Your task to perform on an android device: turn on location history Image 0: 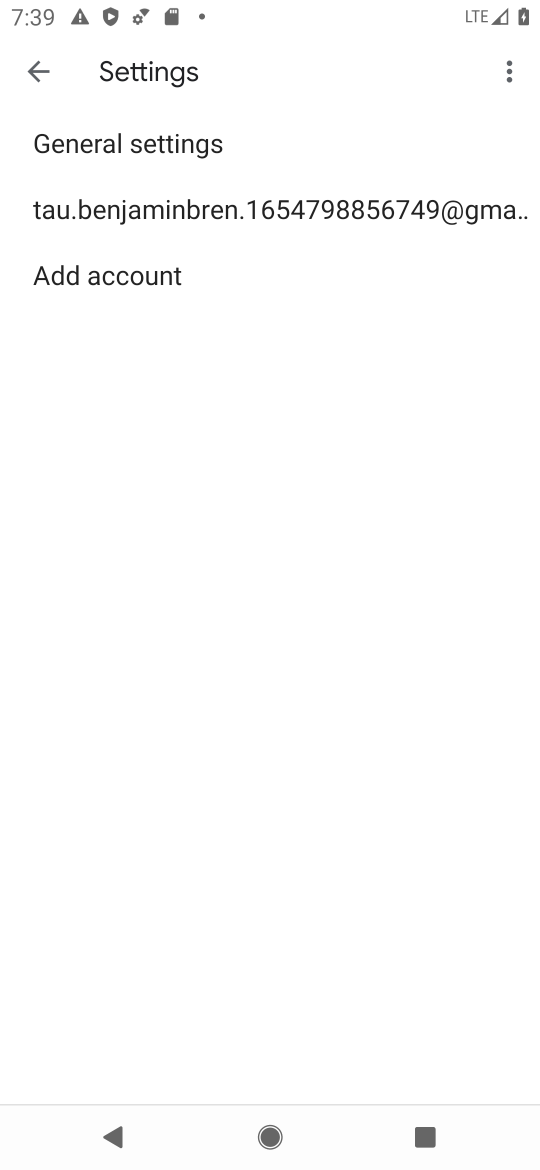
Step 0: drag from (377, 465) to (367, 409)
Your task to perform on an android device: turn on location history Image 1: 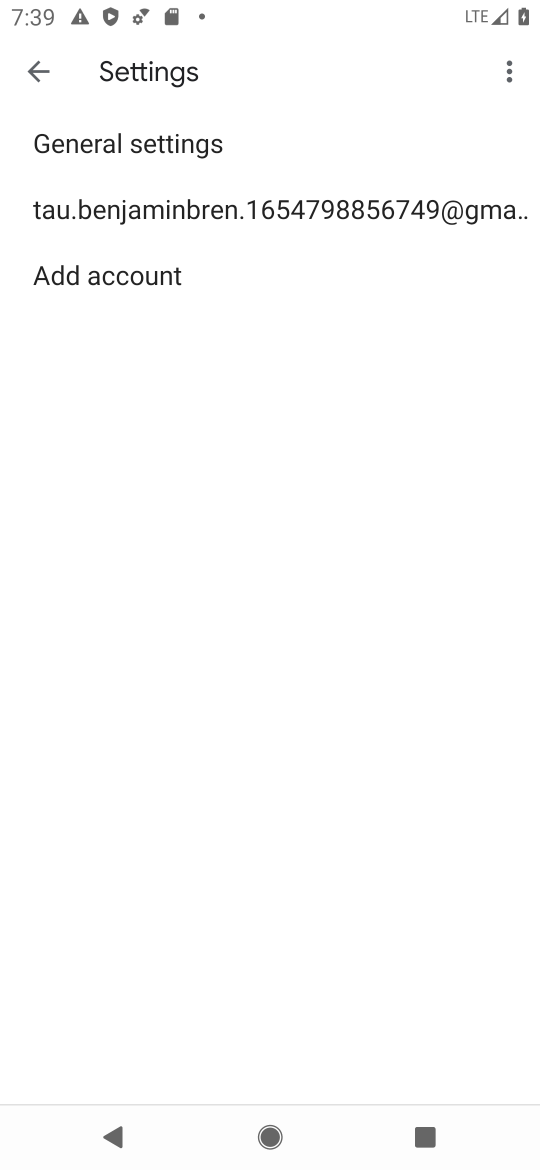
Step 1: click (276, 203)
Your task to perform on an android device: turn on location history Image 2: 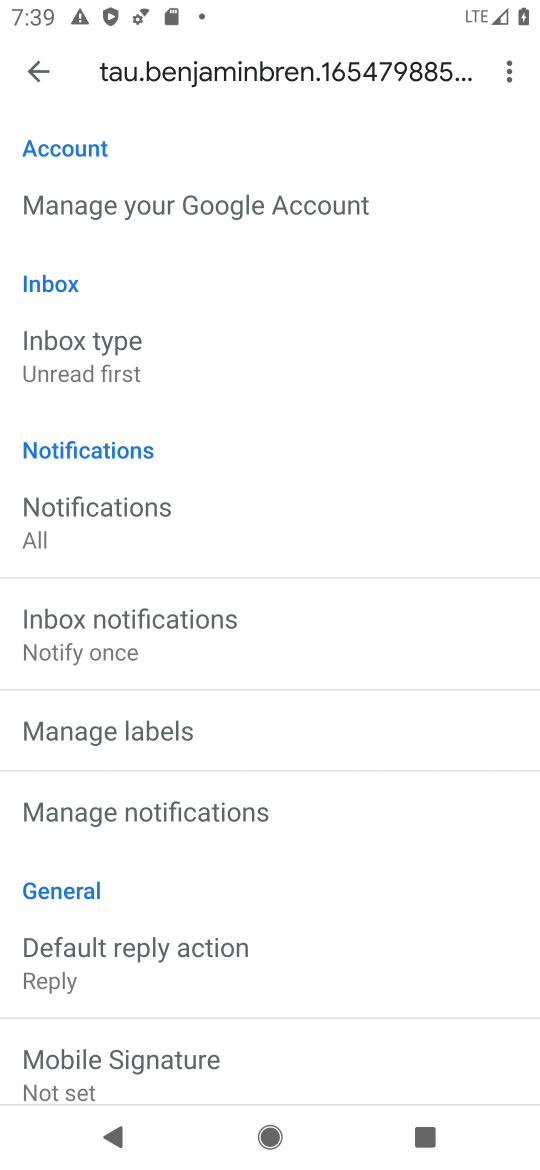
Step 2: press home button
Your task to perform on an android device: turn on location history Image 3: 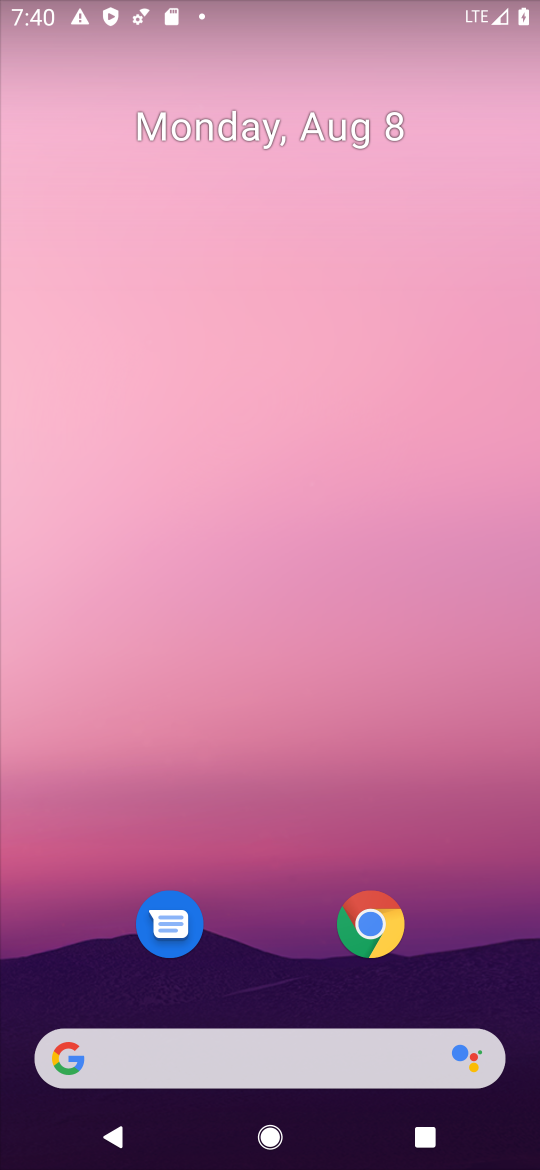
Step 3: drag from (284, 1004) to (424, 165)
Your task to perform on an android device: turn on location history Image 4: 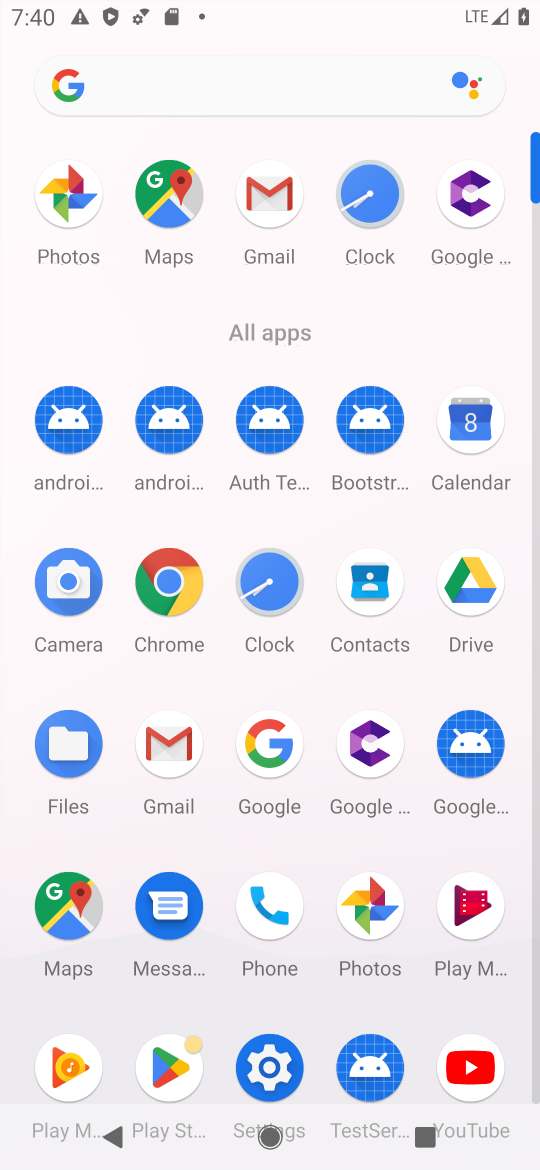
Step 4: click (268, 1058)
Your task to perform on an android device: turn on location history Image 5: 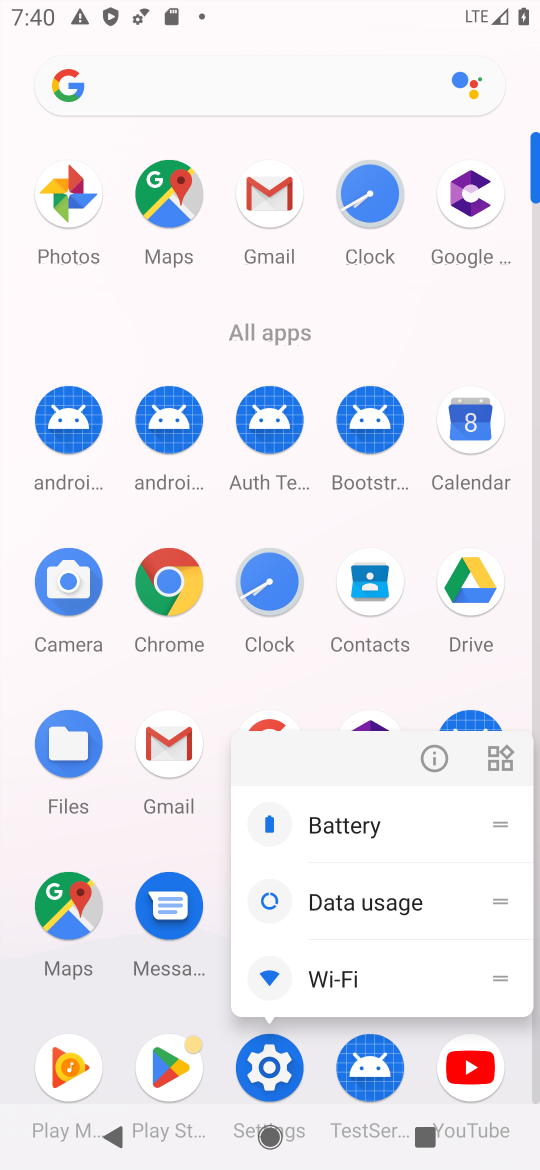
Step 5: click (421, 773)
Your task to perform on an android device: turn on location history Image 6: 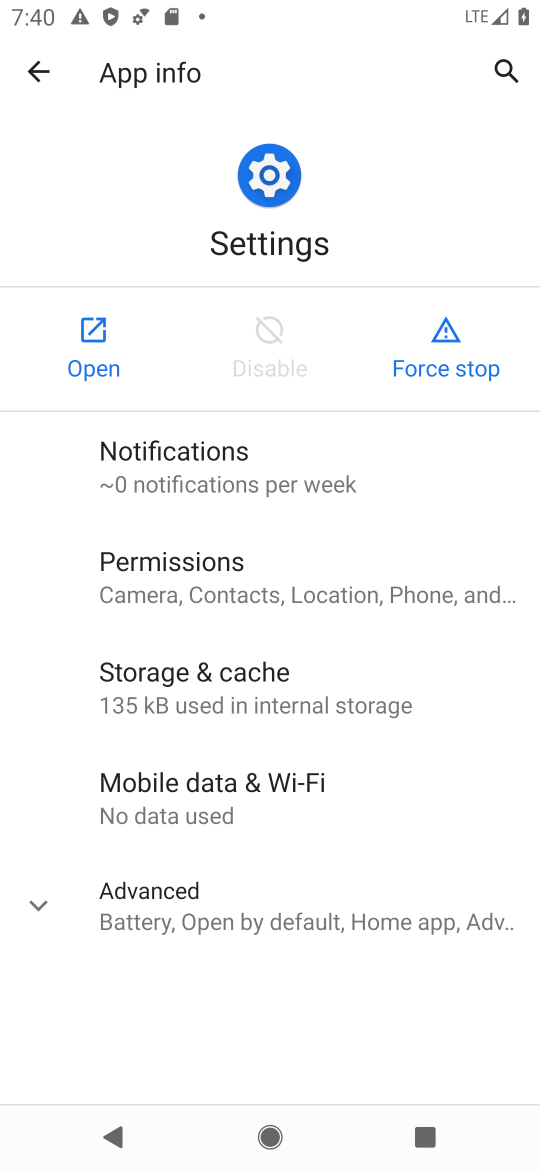
Step 6: click (102, 350)
Your task to perform on an android device: turn on location history Image 7: 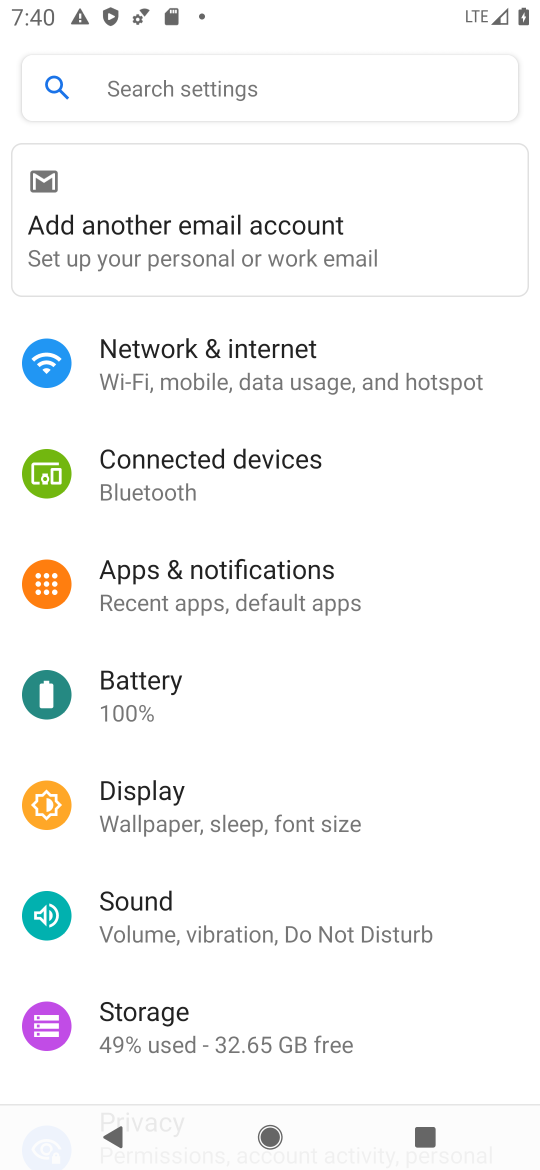
Step 7: drag from (249, 985) to (369, 310)
Your task to perform on an android device: turn on location history Image 8: 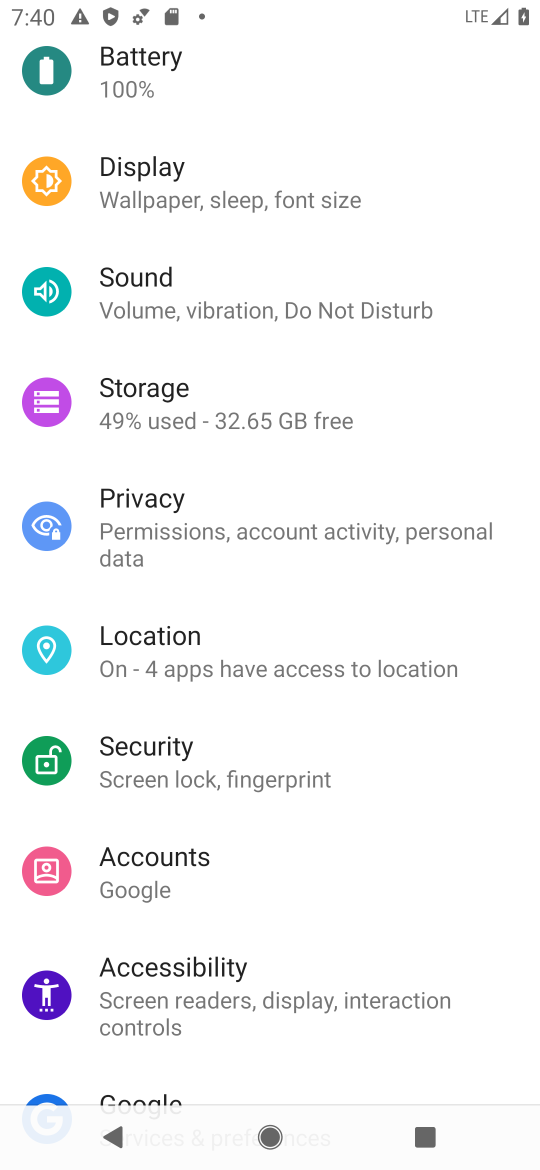
Step 8: click (185, 655)
Your task to perform on an android device: turn on location history Image 9: 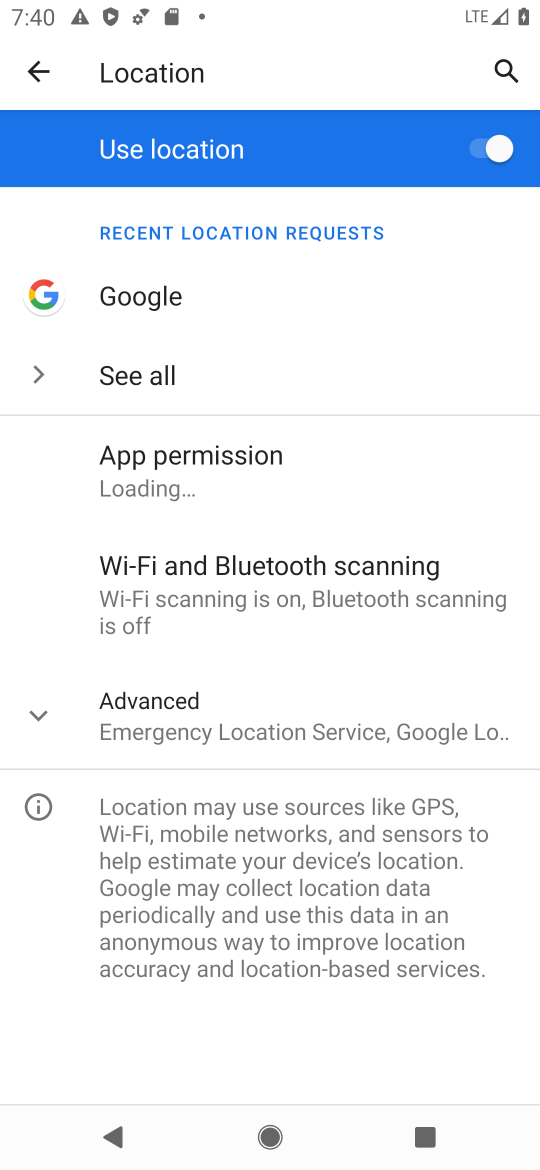
Step 9: click (306, 745)
Your task to perform on an android device: turn on location history Image 10: 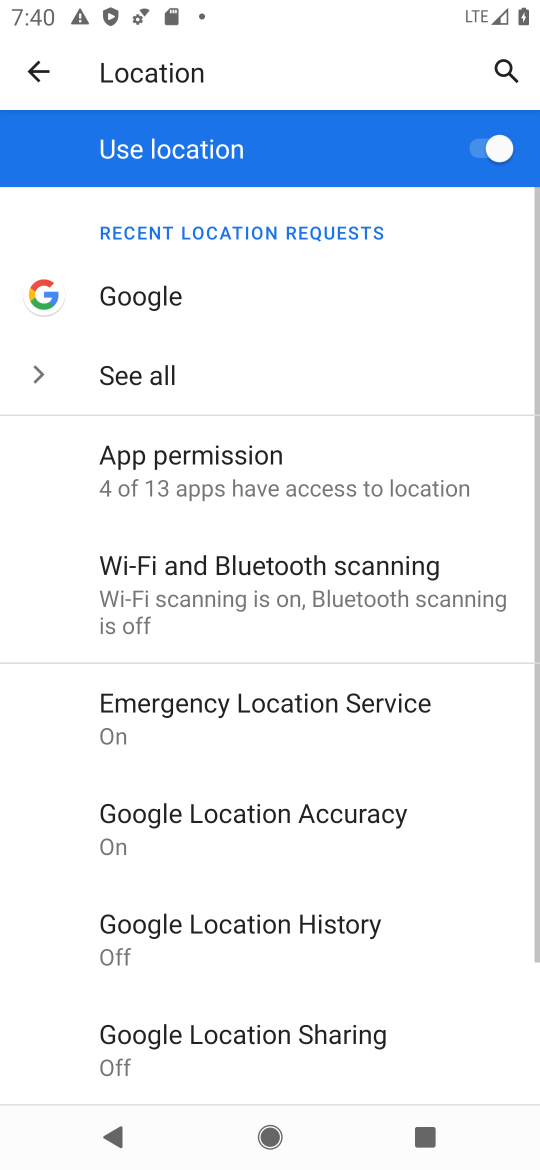
Step 10: click (240, 940)
Your task to perform on an android device: turn on location history Image 11: 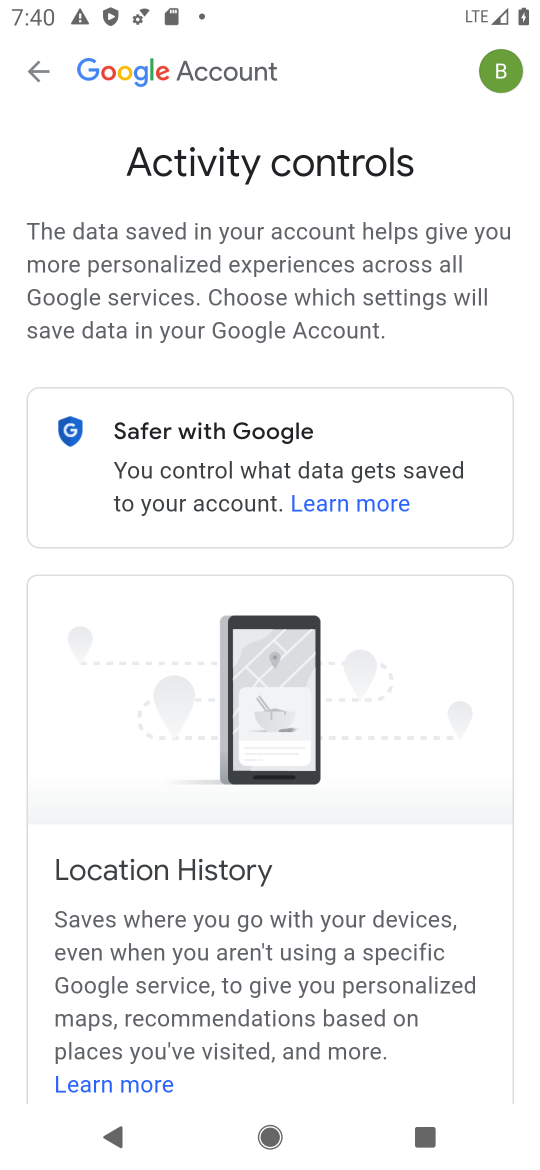
Step 11: drag from (401, 598) to (536, 245)
Your task to perform on an android device: turn on location history Image 12: 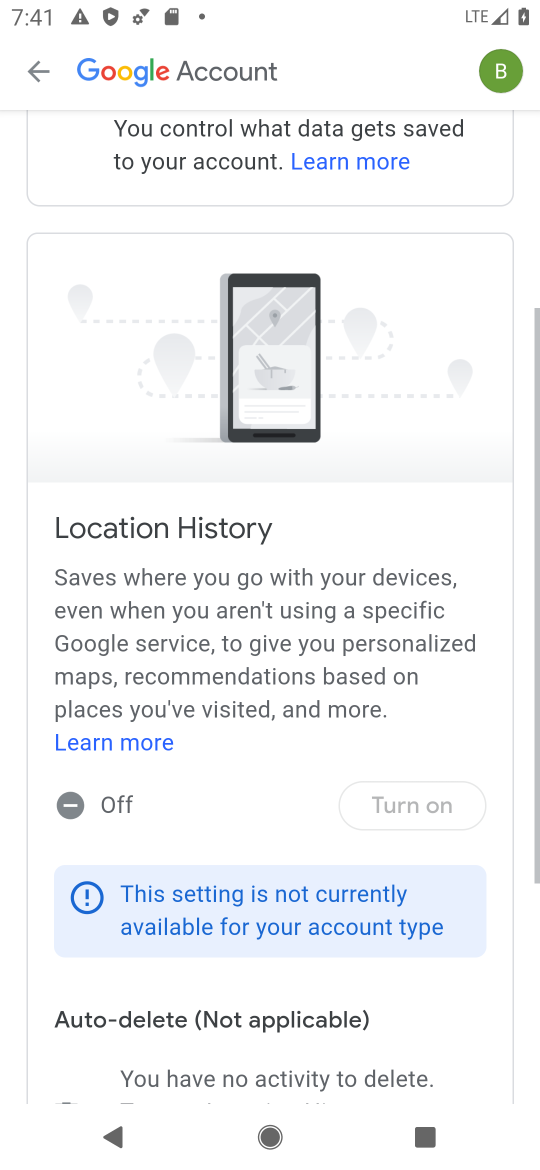
Step 12: drag from (240, 959) to (371, 485)
Your task to perform on an android device: turn on location history Image 13: 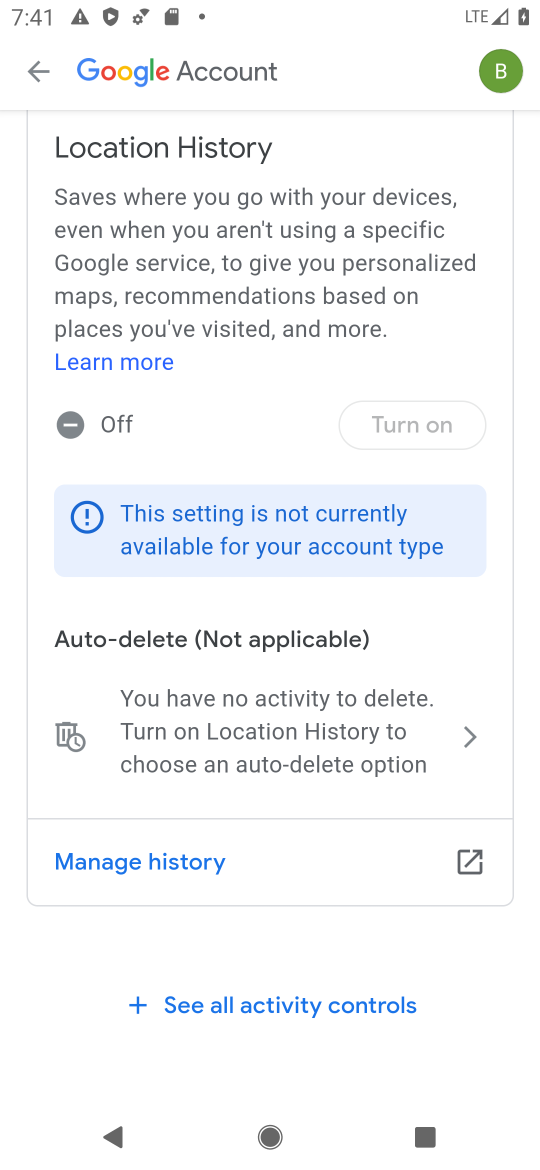
Step 13: click (100, 739)
Your task to perform on an android device: turn on location history Image 14: 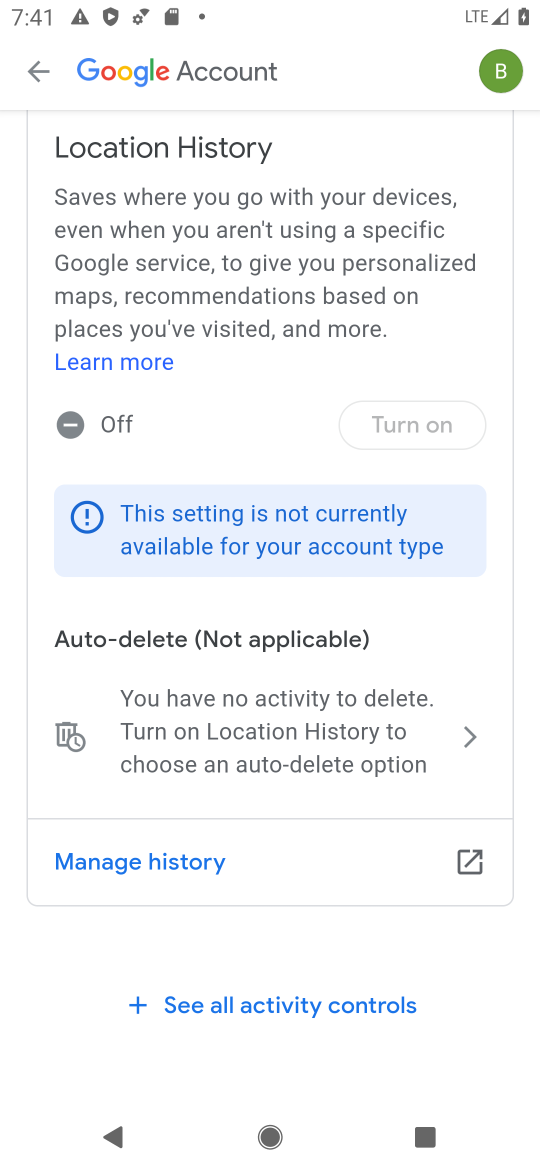
Step 14: click (88, 737)
Your task to perform on an android device: turn on location history Image 15: 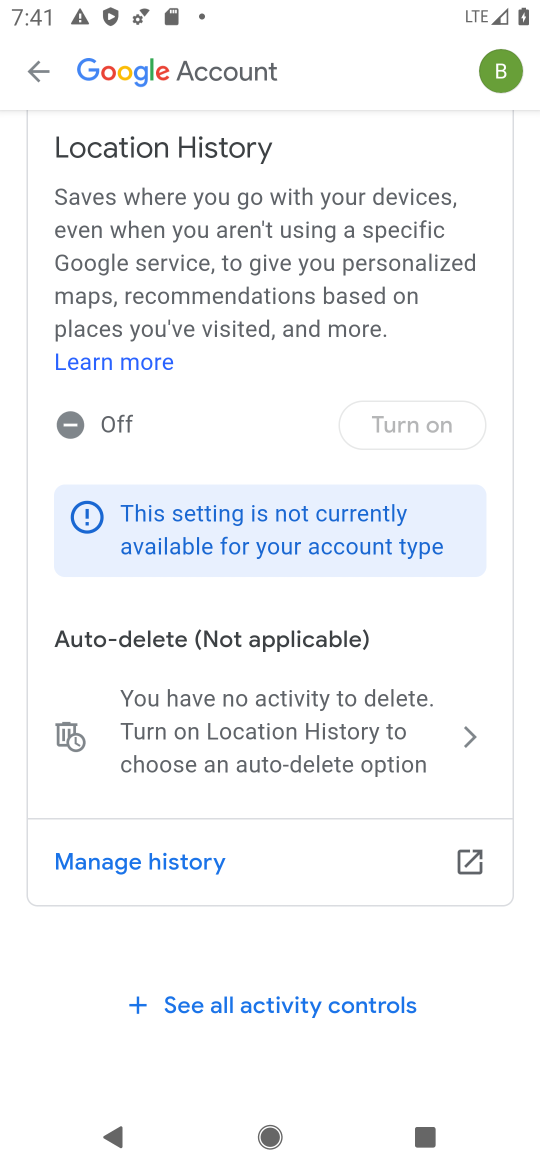
Step 15: click (87, 736)
Your task to perform on an android device: turn on location history Image 16: 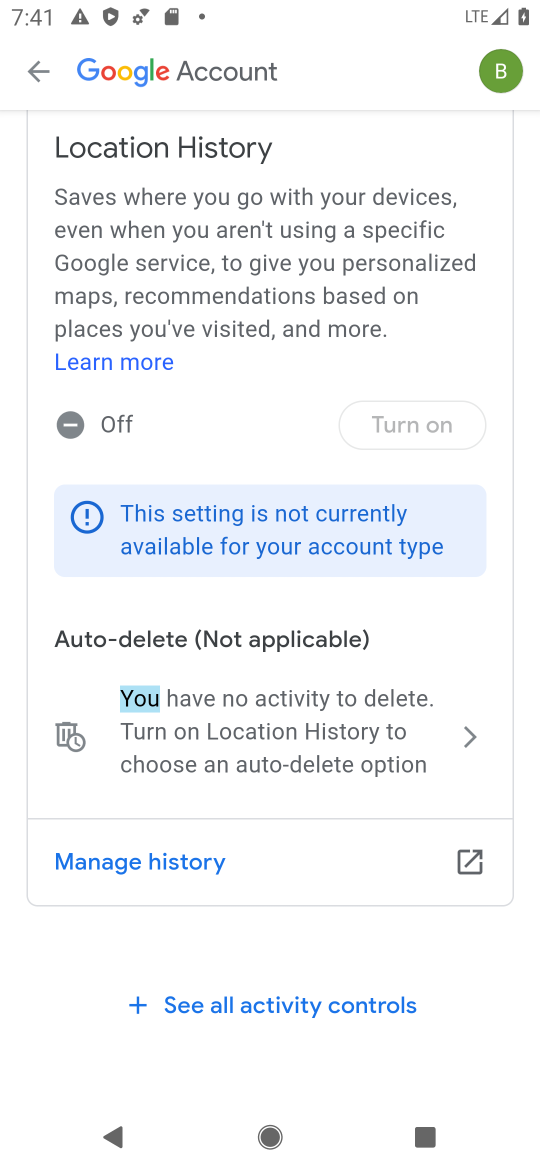
Step 16: click (85, 734)
Your task to perform on an android device: turn on location history Image 17: 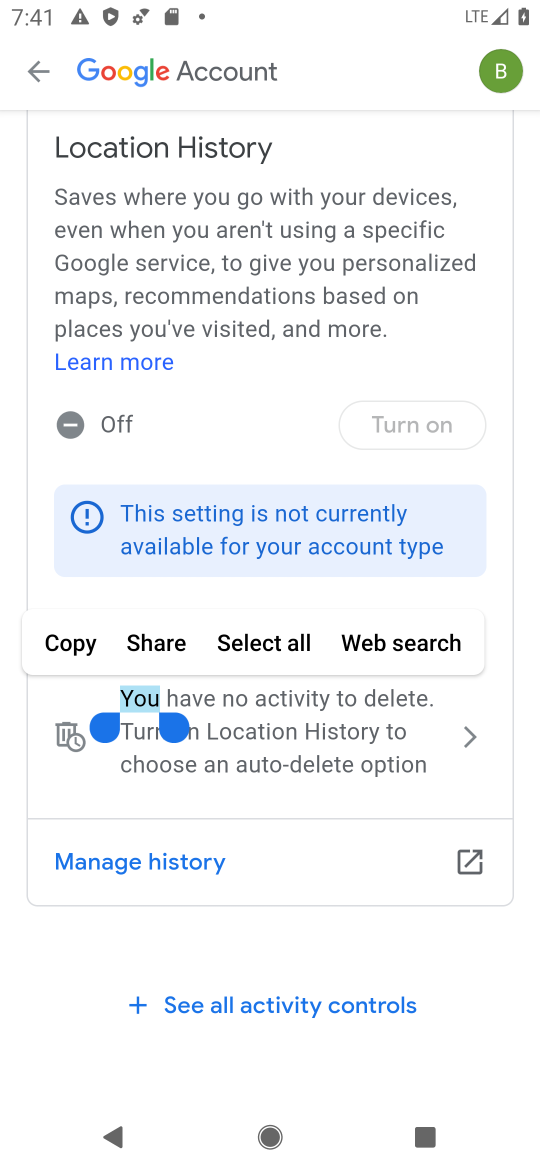
Step 17: click (76, 721)
Your task to perform on an android device: turn on location history Image 18: 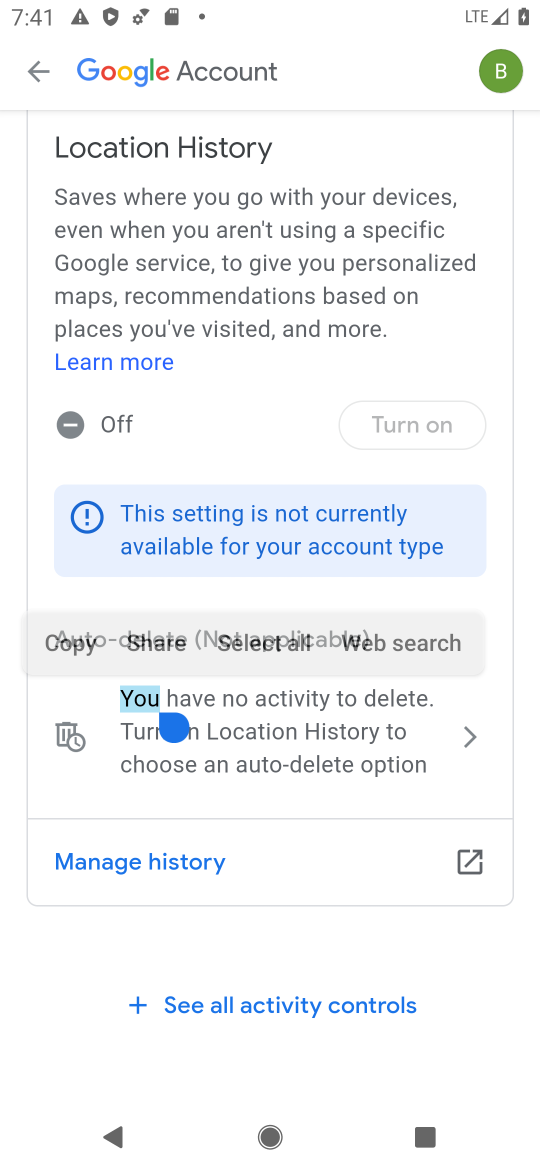
Step 18: click (69, 721)
Your task to perform on an android device: turn on location history Image 19: 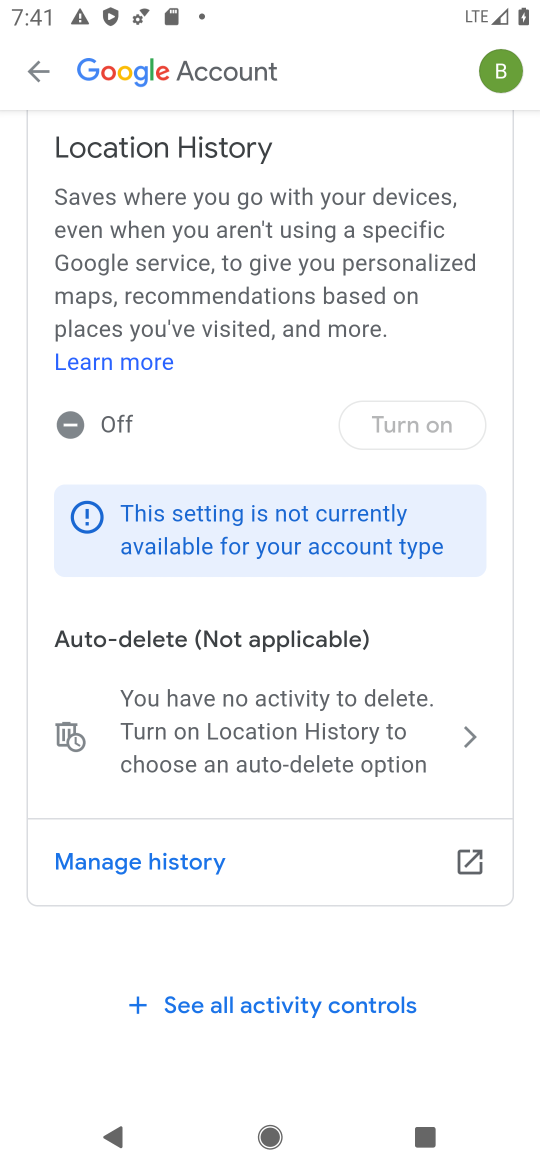
Step 19: task complete